Your task to perform on an android device: move an email to a new category in the gmail app Image 0: 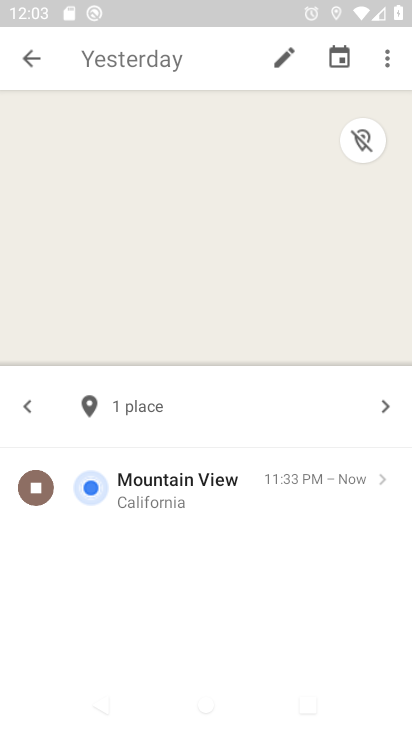
Step 0: press home button
Your task to perform on an android device: move an email to a new category in the gmail app Image 1: 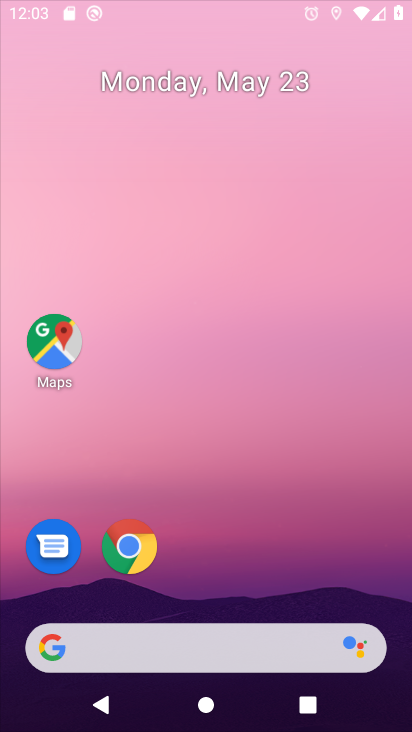
Step 1: drag from (240, 635) to (315, 137)
Your task to perform on an android device: move an email to a new category in the gmail app Image 2: 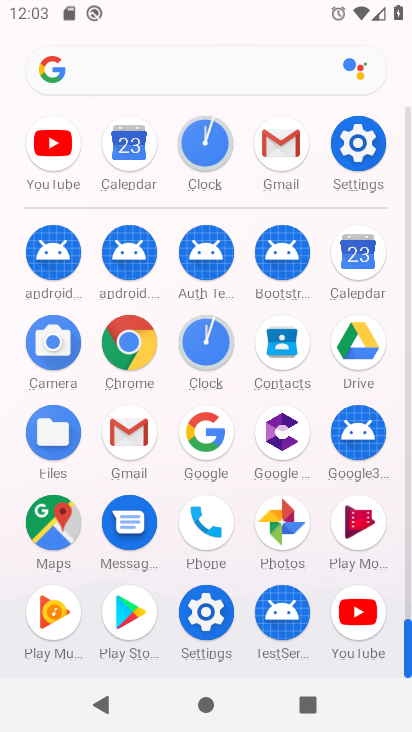
Step 2: click (130, 449)
Your task to perform on an android device: move an email to a new category in the gmail app Image 3: 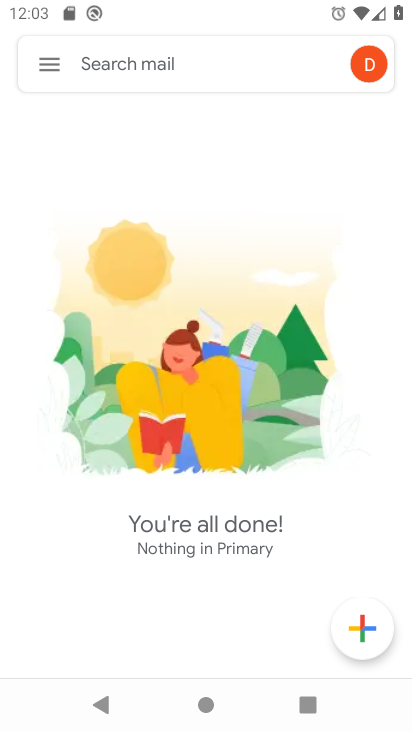
Step 3: click (48, 69)
Your task to perform on an android device: move an email to a new category in the gmail app Image 4: 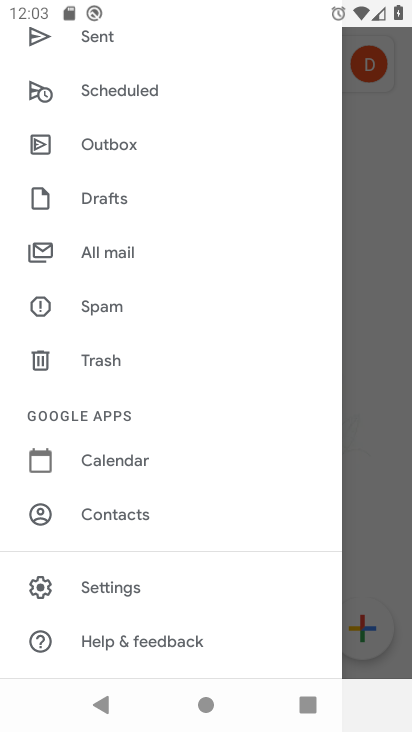
Step 4: click (128, 264)
Your task to perform on an android device: move an email to a new category in the gmail app Image 5: 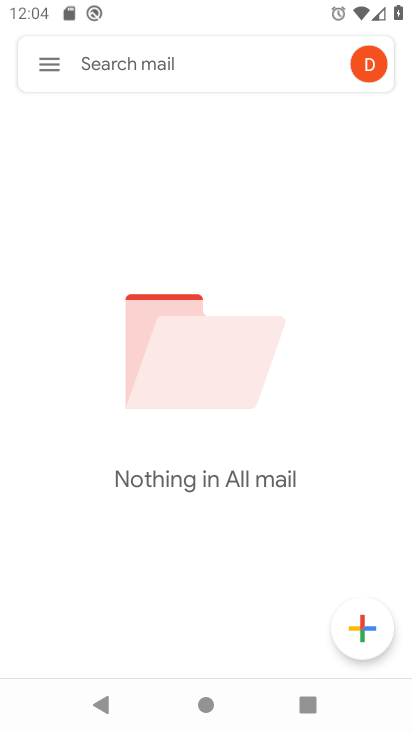
Step 5: click (42, 66)
Your task to perform on an android device: move an email to a new category in the gmail app Image 6: 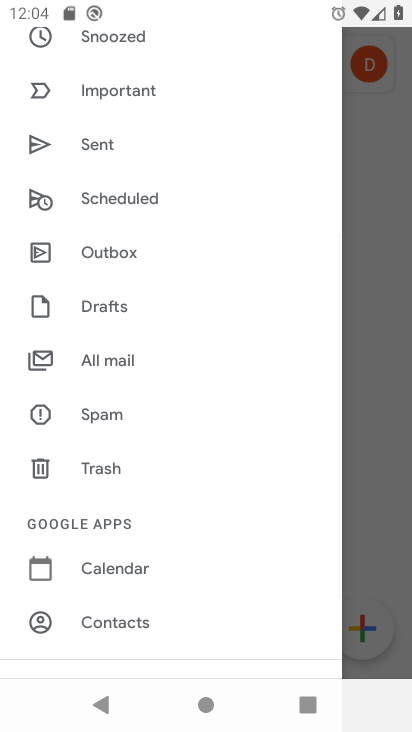
Step 6: drag from (140, 575) to (211, 263)
Your task to perform on an android device: move an email to a new category in the gmail app Image 7: 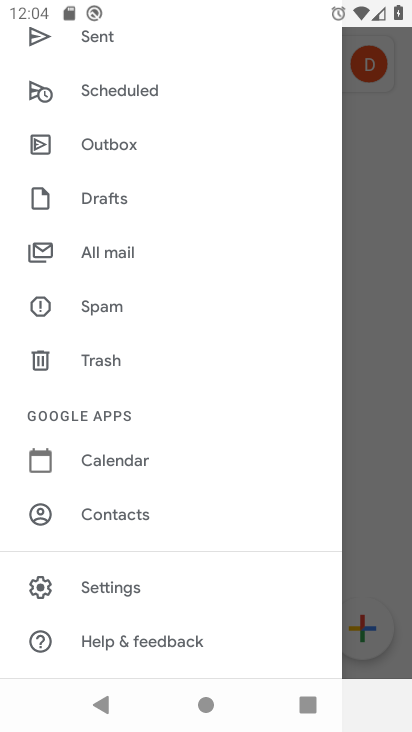
Step 7: click (134, 262)
Your task to perform on an android device: move an email to a new category in the gmail app Image 8: 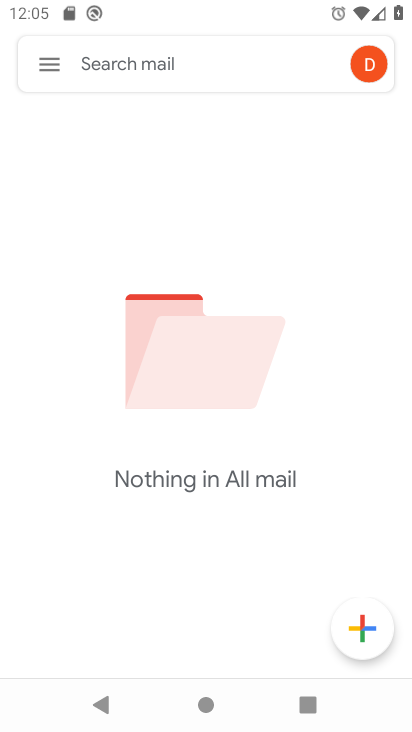
Step 8: click (249, 401)
Your task to perform on an android device: move an email to a new category in the gmail app Image 9: 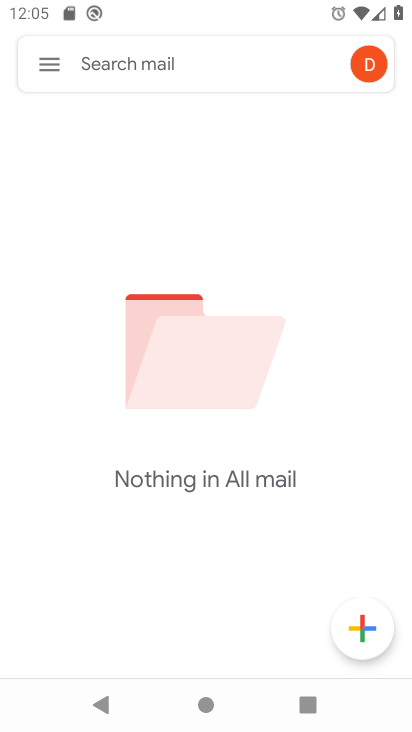
Step 9: task complete